Your task to perform on an android device: see sites visited before in the chrome app Image 0: 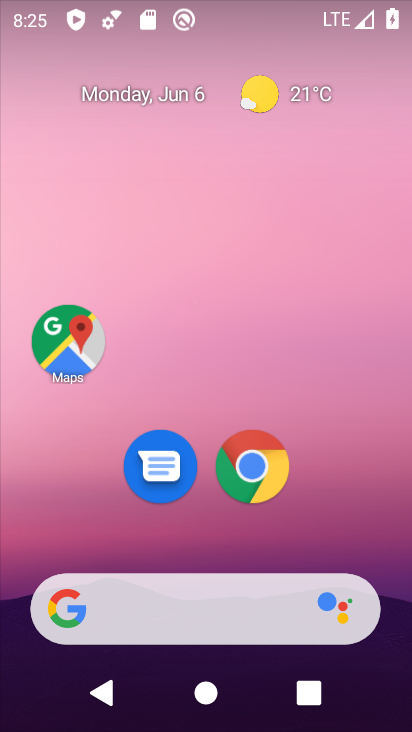
Step 0: drag from (215, 522) to (220, 214)
Your task to perform on an android device: see sites visited before in the chrome app Image 1: 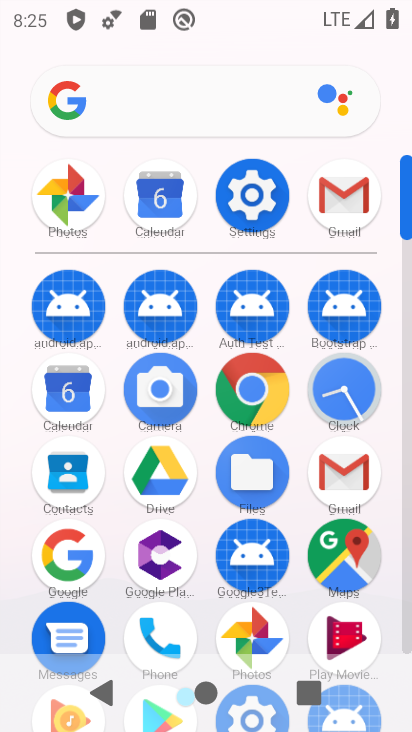
Step 1: click (267, 393)
Your task to perform on an android device: see sites visited before in the chrome app Image 2: 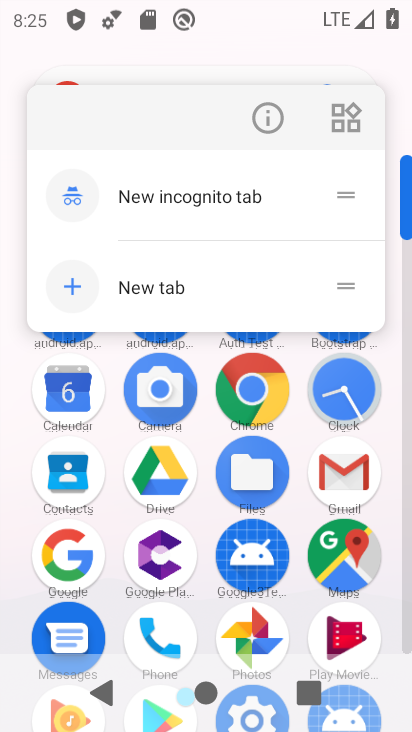
Step 2: click (270, 114)
Your task to perform on an android device: see sites visited before in the chrome app Image 3: 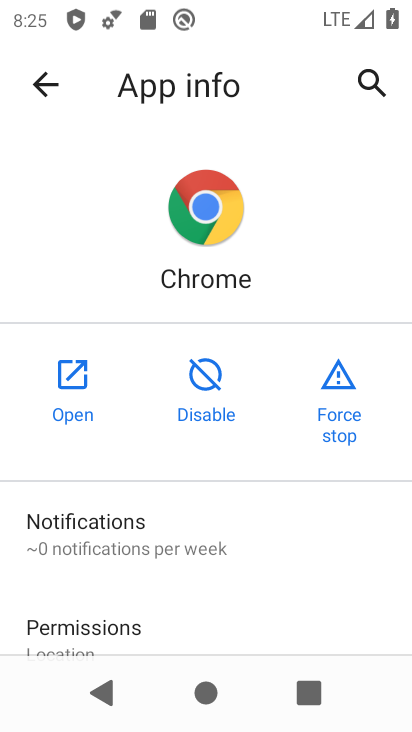
Step 3: click (76, 387)
Your task to perform on an android device: see sites visited before in the chrome app Image 4: 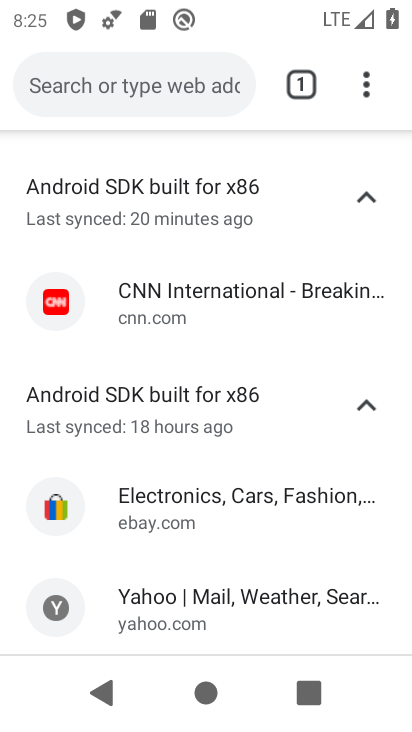
Step 4: task complete